Your task to perform on an android device: Go to privacy settings Image 0: 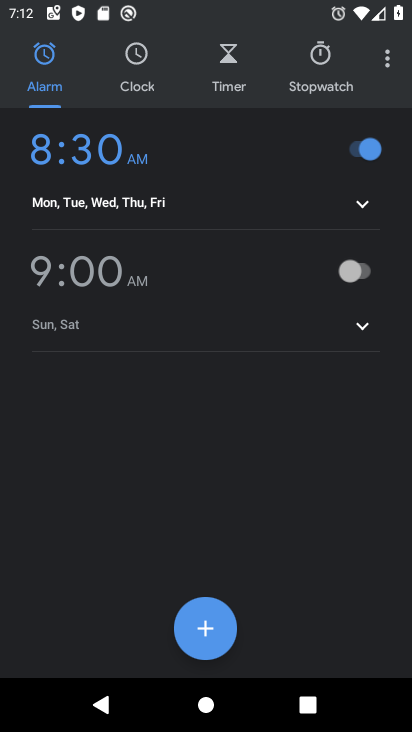
Step 0: press home button
Your task to perform on an android device: Go to privacy settings Image 1: 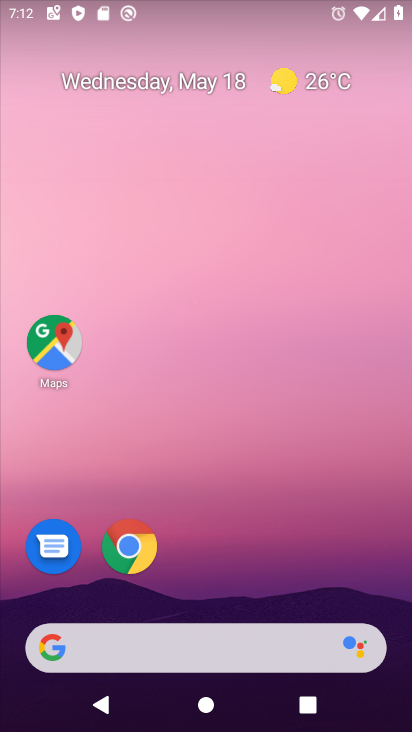
Step 1: drag from (389, 617) to (243, 59)
Your task to perform on an android device: Go to privacy settings Image 2: 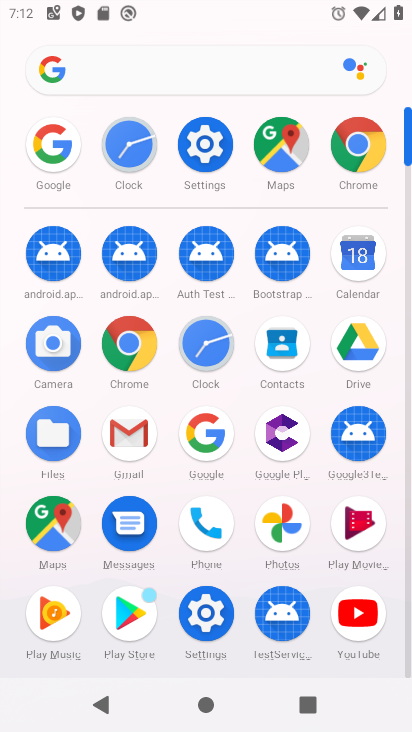
Step 2: click (219, 175)
Your task to perform on an android device: Go to privacy settings Image 3: 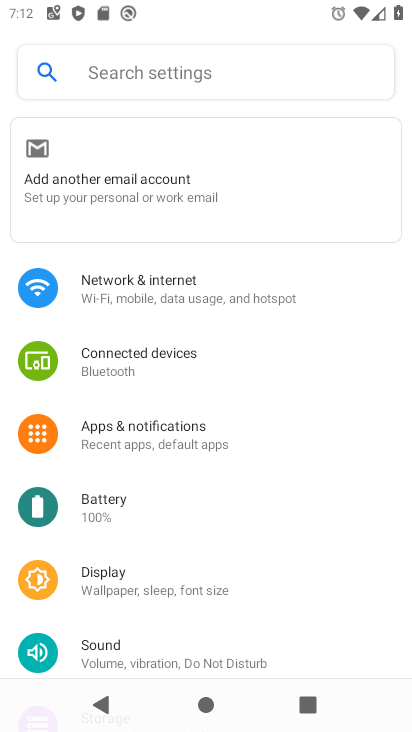
Step 3: drag from (158, 608) to (202, 174)
Your task to perform on an android device: Go to privacy settings Image 4: 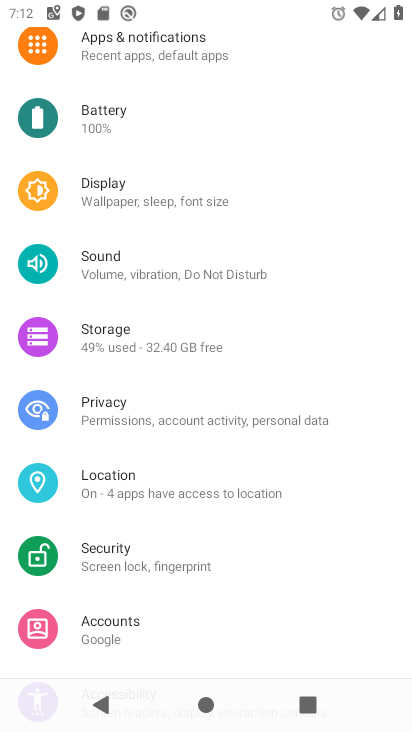
Step 4: click (171, 412)
Your task to perform on an android device: Go to privacy settings Image 5: 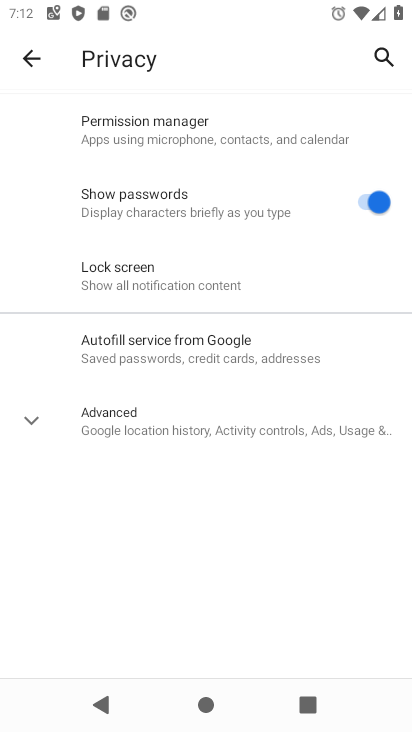
Step 5: task complete